Your task to perform on an android device: Open Google Chrome and open the bookmarks view Image 0: 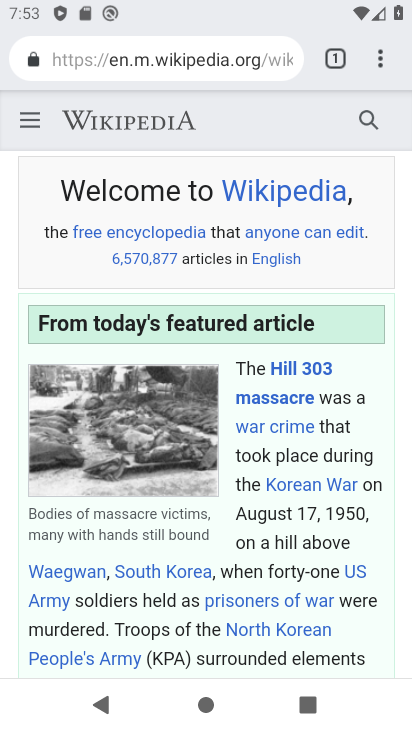
Step 0: press home button
Your task to perform on an android device: Open Google Chrome and open the bookmarks view Image 1: 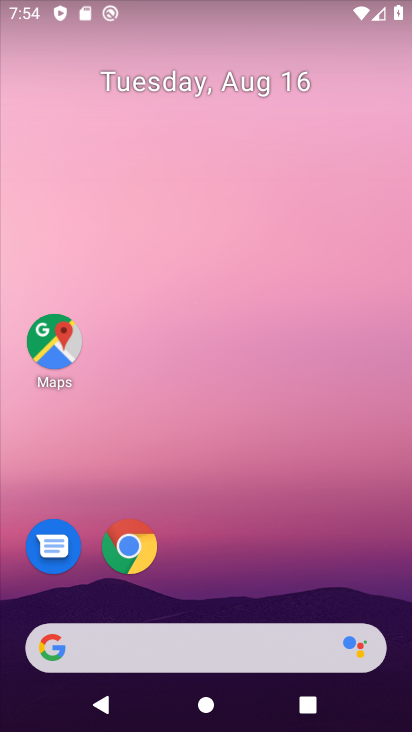
Step 1: click (126, 549)
Your task to perform on an android device: Open Google Chrome and open the bookmarks view Image 2: 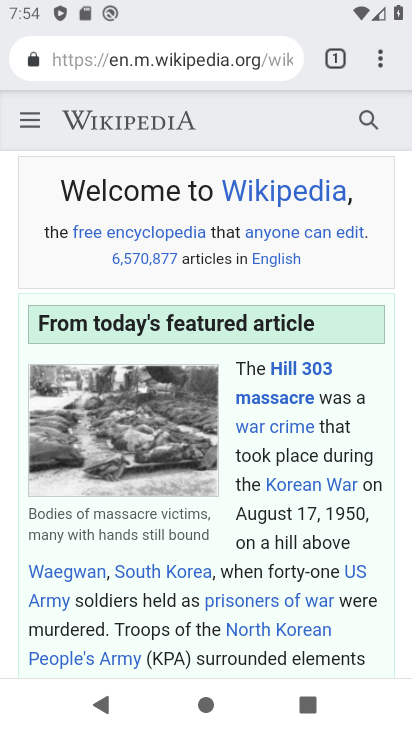
Step 2: click (383, 64)
Your task to perform on an android device: Open Google Chrome and open the bookmarks view Image 3: 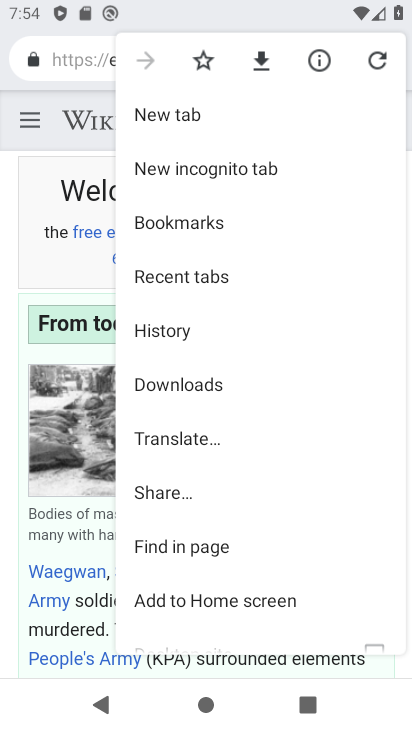
Step 3: click (184, 220)
Your task to perform on an android device: Open Google Chrome and open the bookmarks view Image 4: 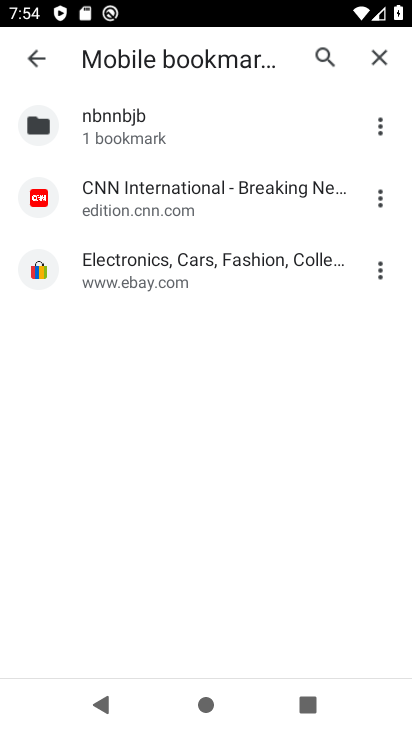
Step 4: task complete